Your task to perform on an android device: check the backup settings in the google photos Image 0: 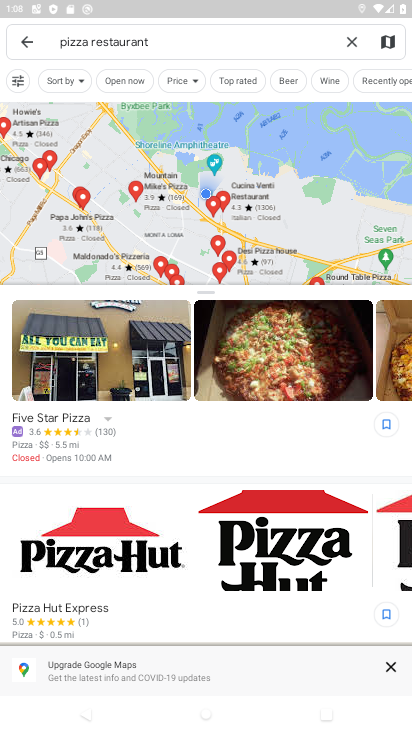
Step 0: press home button
Your task to perform on an android device: check the backup settings in the google photos Image 1: 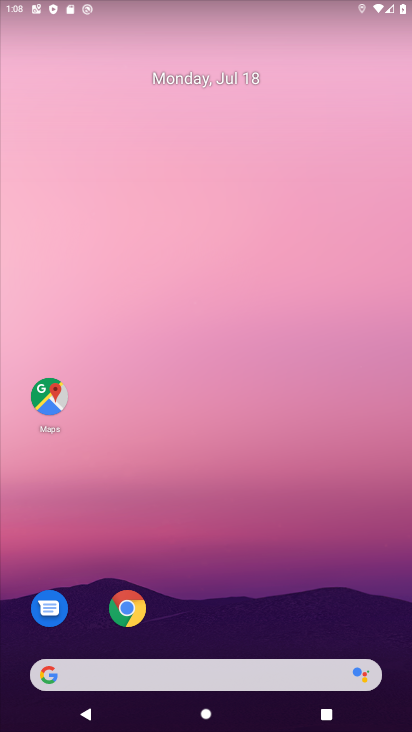
Step 1: drag from (311, 624) to (288, 116)
Your task to perform on an android device: check the backup settings in the google photos Image 2: 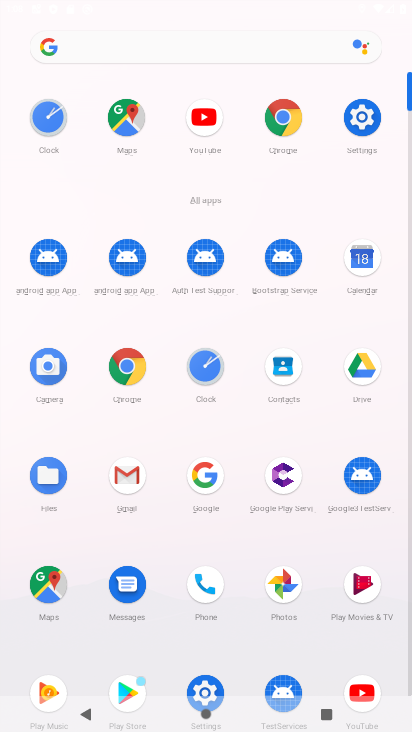
Step 2: click (285, 583)
Your task to perform on an android device: check the backup settings in the google photos Image 3: 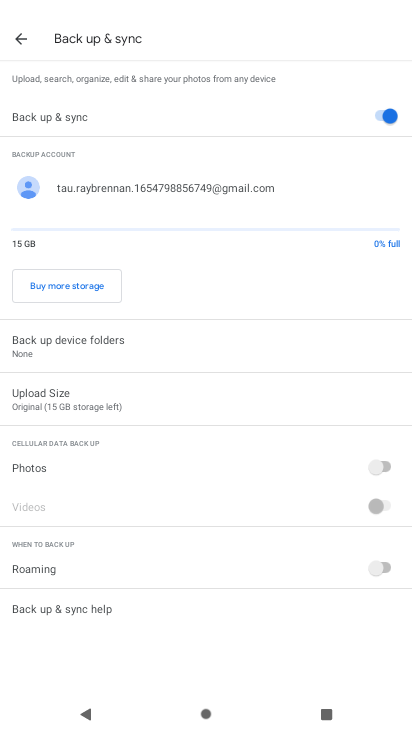
Step 3: click (18, 37)
Your task to perform on an android device: check the backup settings in the google photos Image 4: 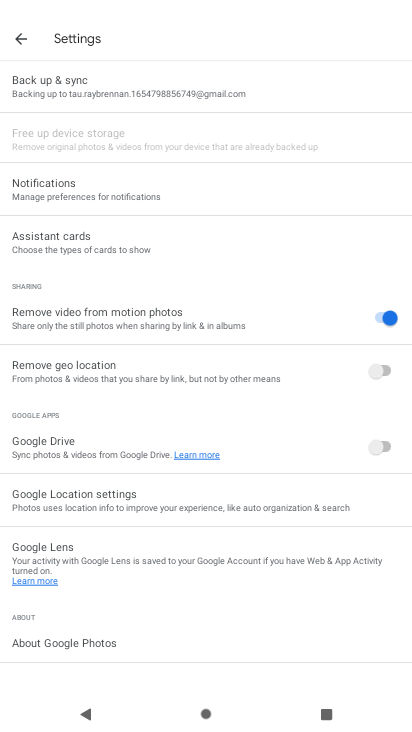
Step 4: click (16, 42)
Your task to perform on an android device: check the backup settings in the google photos Image 5: 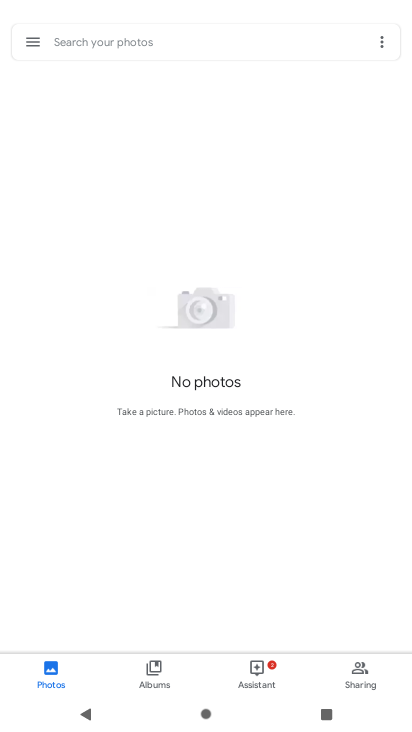
Step 5: click (34, 37)
Your task to perform on an android device: check the backup settings in the google photos Image 6: 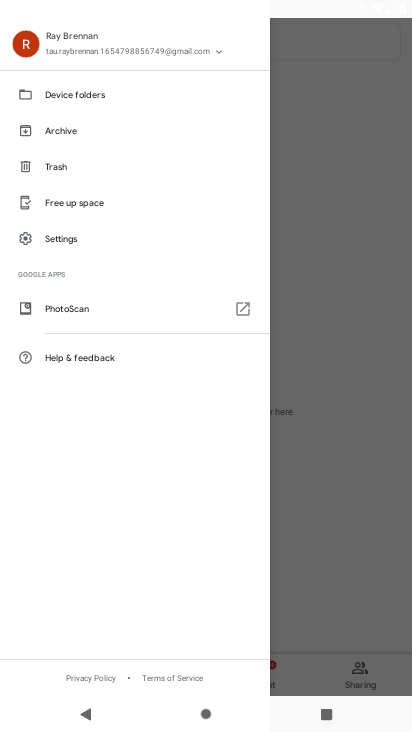
Step 6: click (75, 238)
Your task to perform on an android device: check the backup settings in the google photos Image 7: 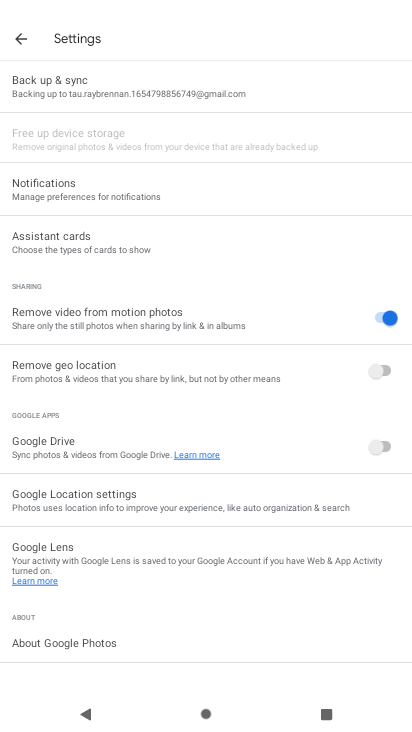
Step 7: click (120, 90)
Your task to perform on an android device: check the backup settings in the google photos Image 8: 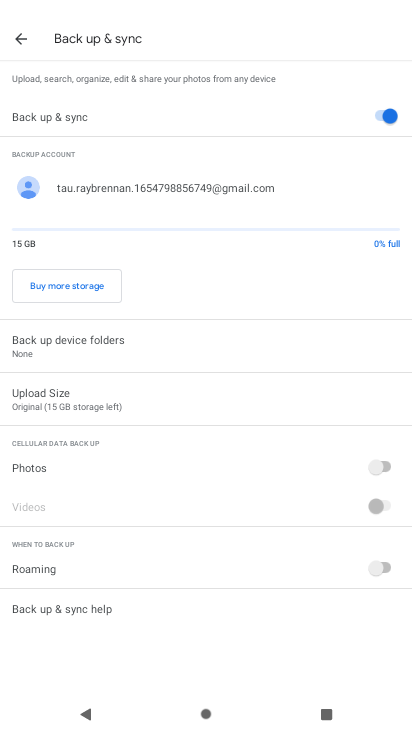
Step 8: task complete